Your task to perform on an android device: Search for Mexican restaurants on Maps Image 0: 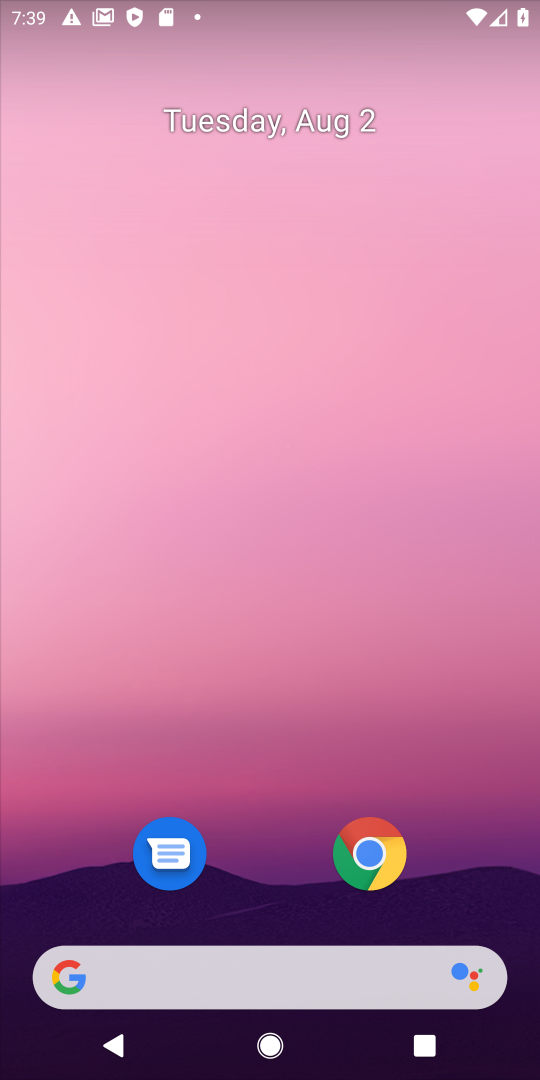
Step 0: drag from (444, 907) to (386, 257)
Your task to perform on an android device: Search for Mexican restaurants on Maps Image 1: 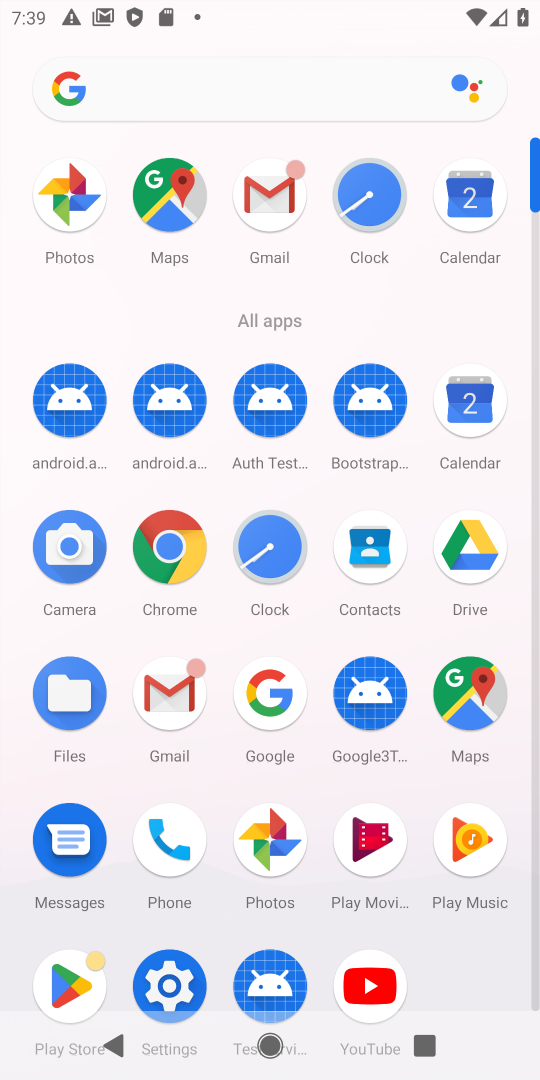
Step 1: click (451, 707)
Your task to perform on an android device: Search for Mexican restaurants on Maps Image 2: 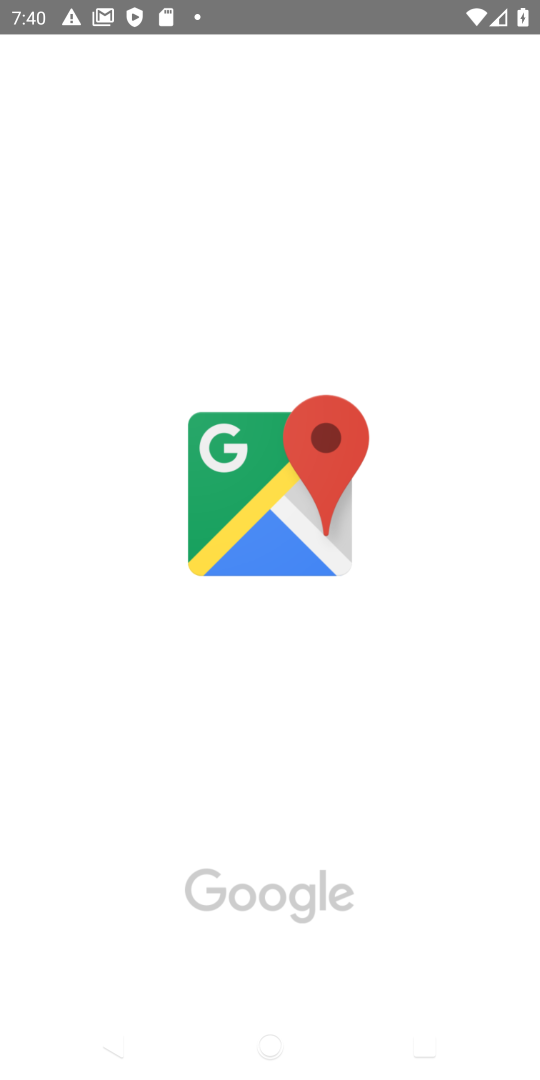
Step 2: task complete